Your task to perform on an android device: manage bookmarks in the chrome app Image 0: 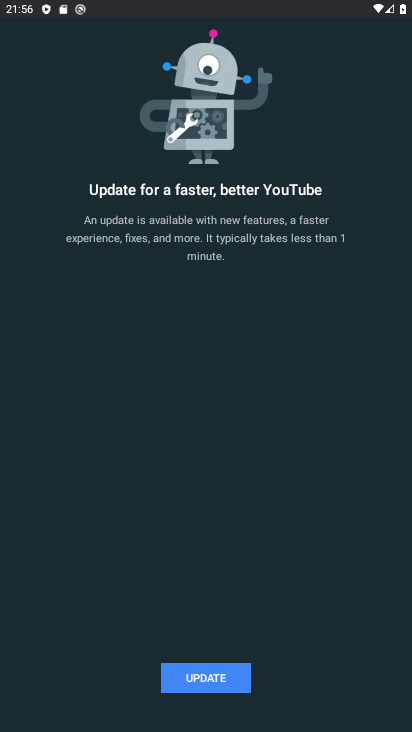
Step 0: press home button
Your task to perform on an android device: manage bookmarks in the chrome app Image 1: 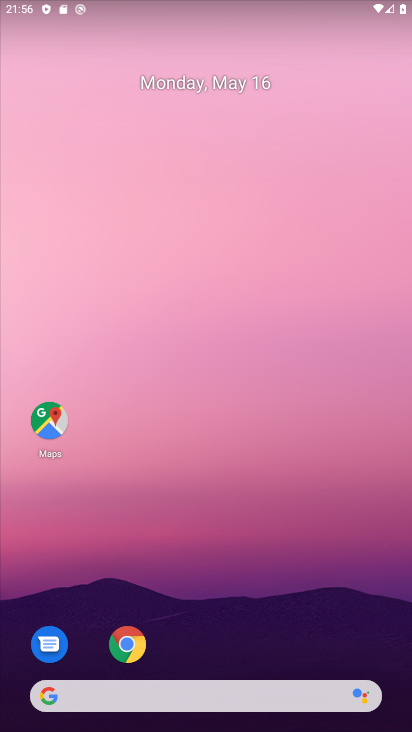
Step 1: click (252, 645)
Your task to perform on an android device: manage bookmarks in the chrome app Image 2: 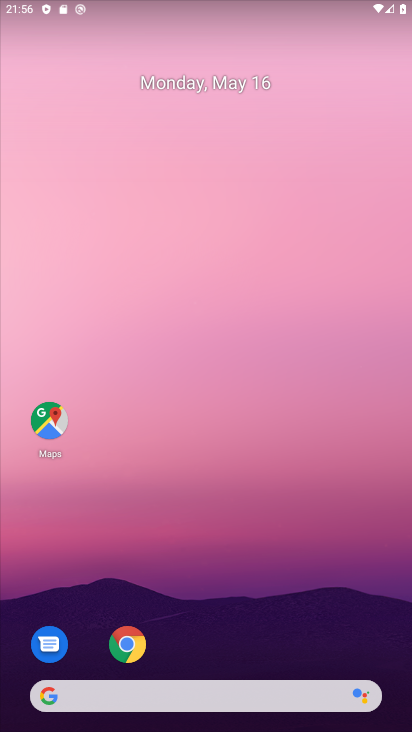
Step 2: click (120, 636)
Your task to perform on an android device: manage bookmarks in the chrome app Image 3: 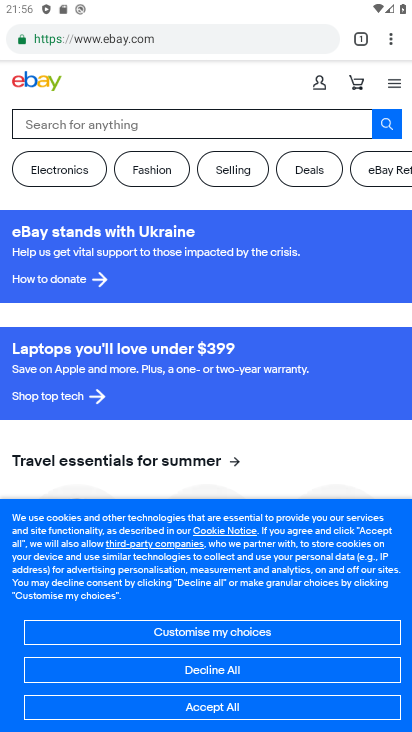
Step 3: click (384, 37)
Your task to perform on an android device: manage bookmarks in the chrome app Image 4: 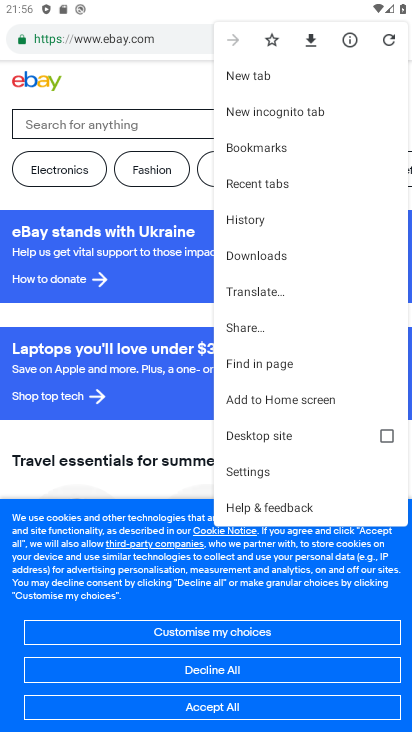
Step 4: click (273, 150)
Your task to perform on an android device: manage bookmarks in the chrome app Image 5: 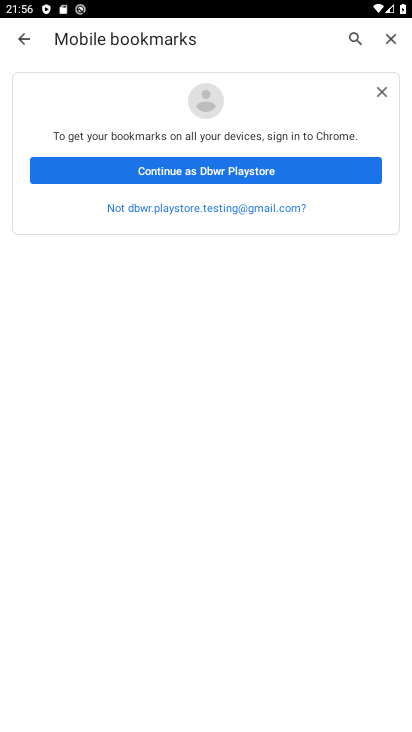
Step 5: click (377, 88)
Your task to perform on an android device: manage bookmarks in the chrome app Image 6: 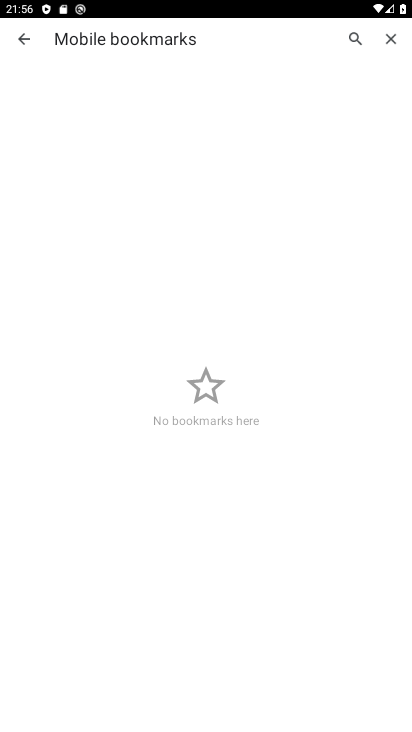
Step 6: task complete